Your task to perform on an android device: change text size in settings app Image 0: 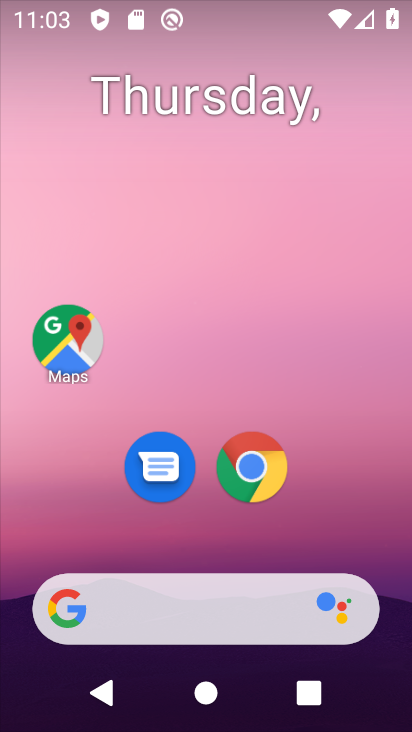
Step 0: drag from (205, 552) to (208, 113)
Your task to perform on an android device: change text size in settings app Image 1: 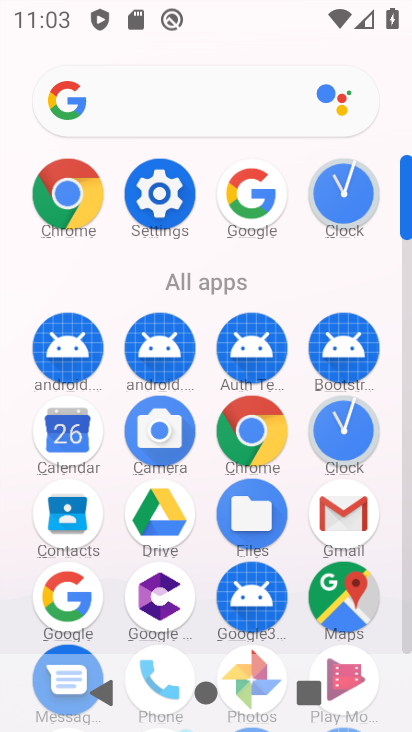
Step 1: drag from (206, 280) to (195, 20)
Your task to perform on an android device: change text size in settings app Image 2: 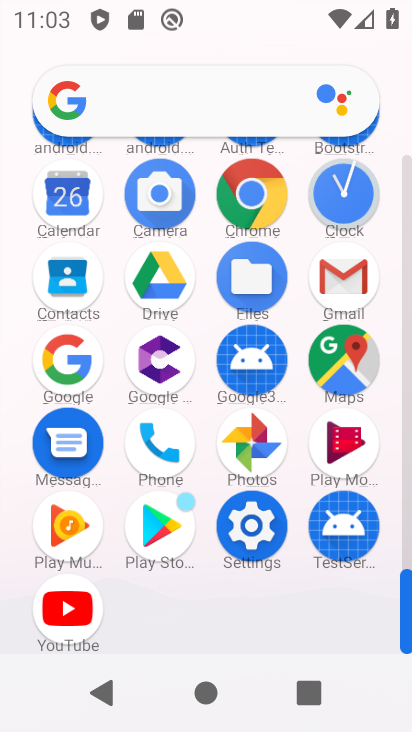
Step 2: click (236, 539)
Your task to perform on an android device: change text size in settings app Image 3: 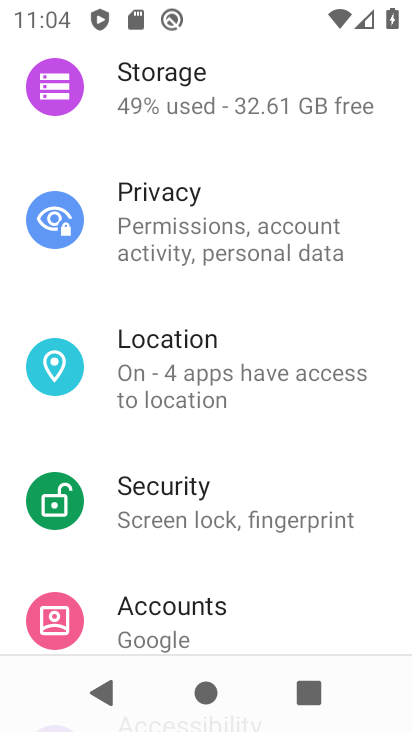
Step 3: drag from (225, 269) to (202, 636)
Your task to perform on an android device: change text size in settings app Image 4: 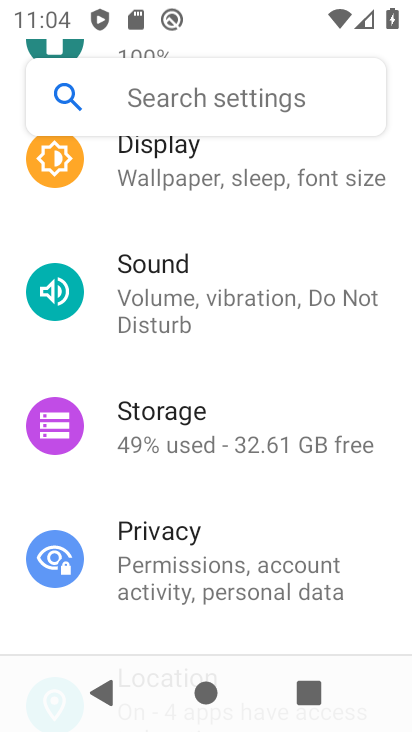
Step 4: drag from (180, 217) to (199, 559)
Your task to perform on an android device: change text size in settings app Image 5: 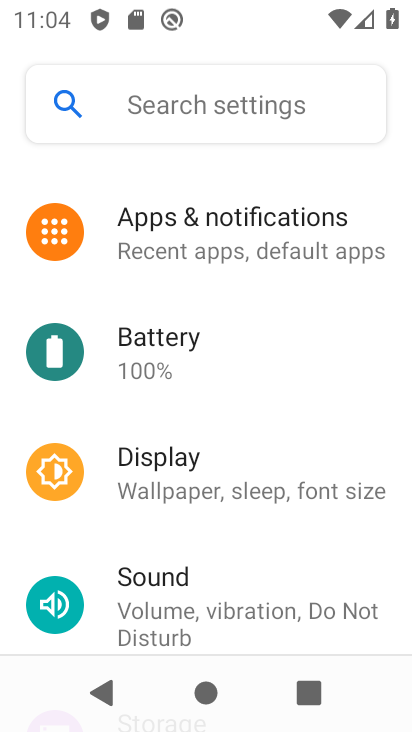
Step 5: drag from (182, 456) to (218, 131)
Your task to perform on an android device: change text size in settings app Image 6: 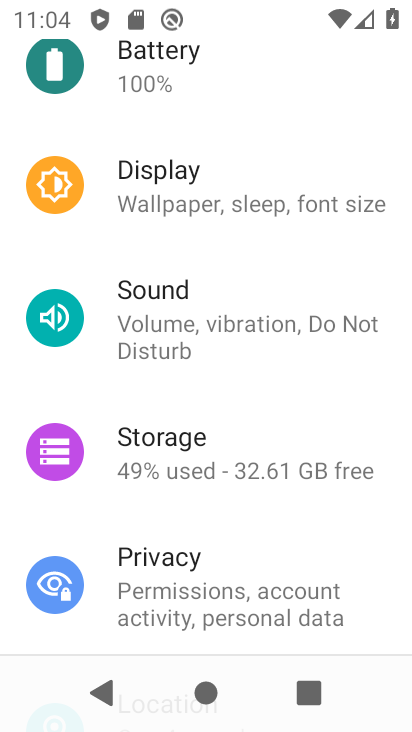
Step 6: drag from (171, 531) to (157, 176)
Your task to perform on an android device: change text size in settings app Image 7: 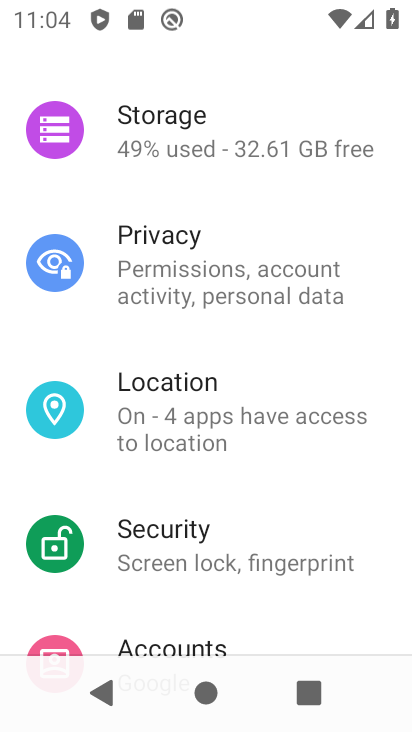
Step 7: drag from (209, 497) to (175, 150)
Your task to perform on an android device: change text size in settings app Image 8: 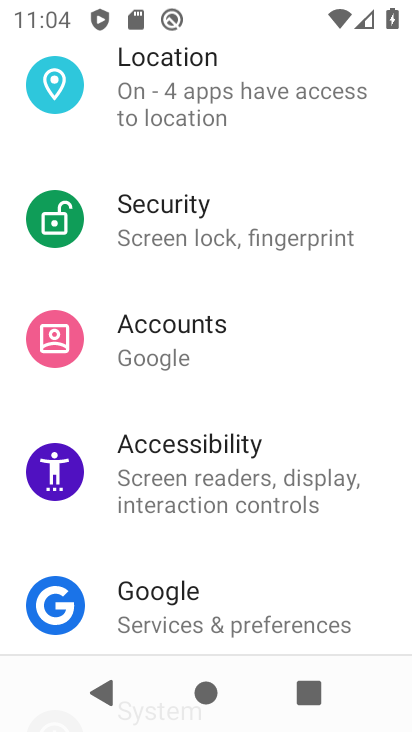
Step 8: drag from (188, 517) to (195, 130)
Your task to perform on an android device: change text size in settings app Image 9: 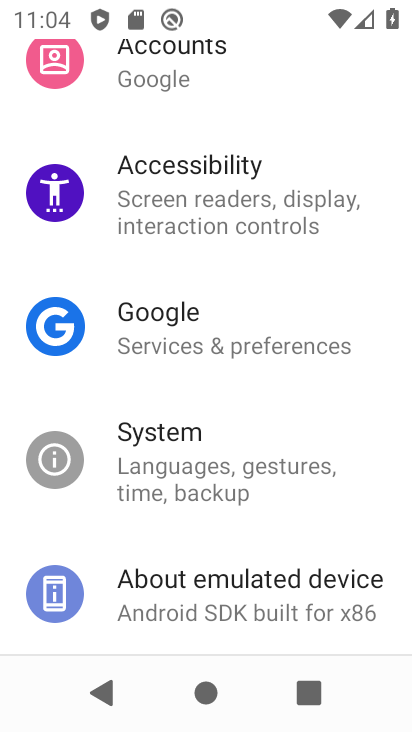
Step 9: drag from (210, 102) to (197, 563)
Your task to perform on an android device: change text size in settings app Image 10: 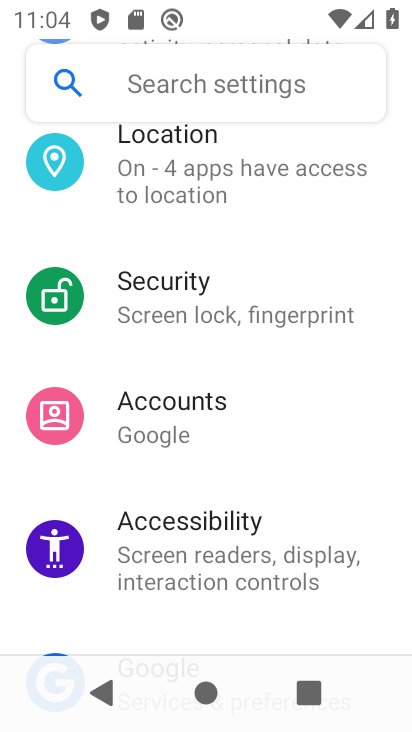
Step 10: drag from (207, 222) to (215, 612)
Your task to perform on an android device: change text size in settings app Image 11: 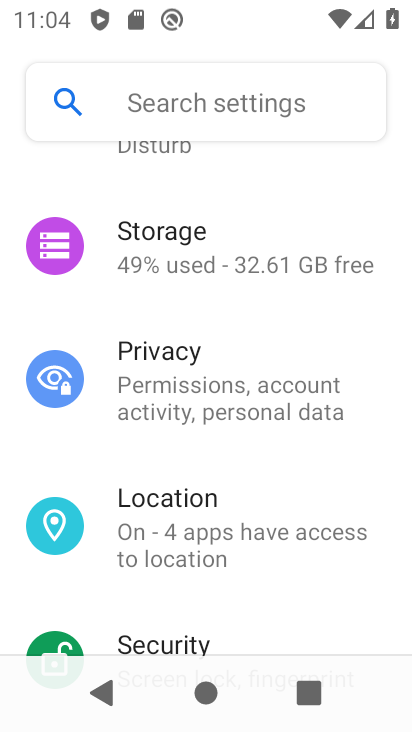
Step 11: drag from (193, 306) to (218, 575)
Your task to perform on an android device: change text size in settings app Image 12: 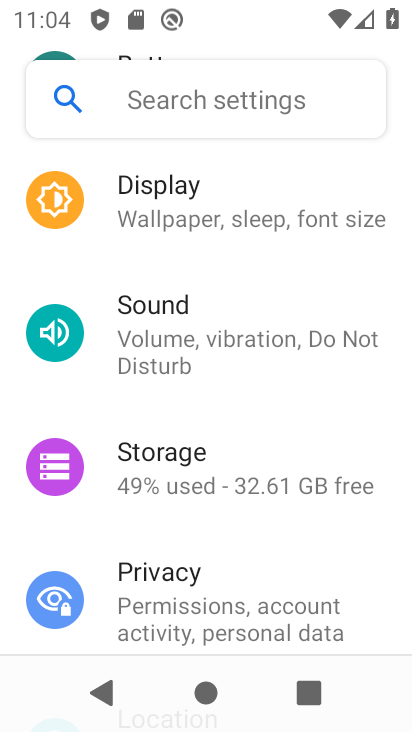
Step 12: click (186, 231)
Your task to perform on an android device: change text size in settings app Image 13: 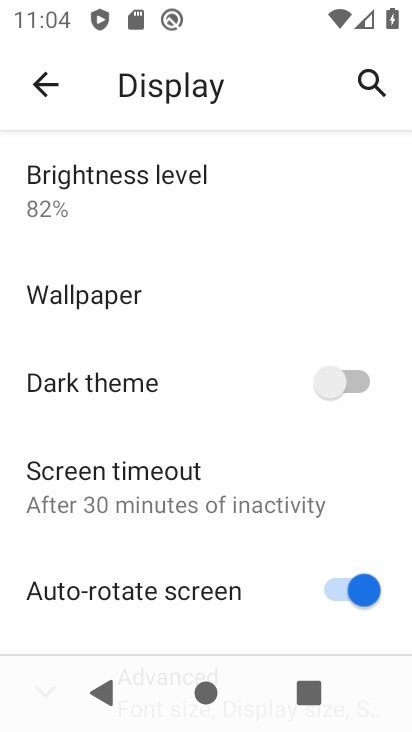
Step 13: drag from (199, 471) to (193, 58)
Your task to perform on an android device: change text size in settings app Image 14: 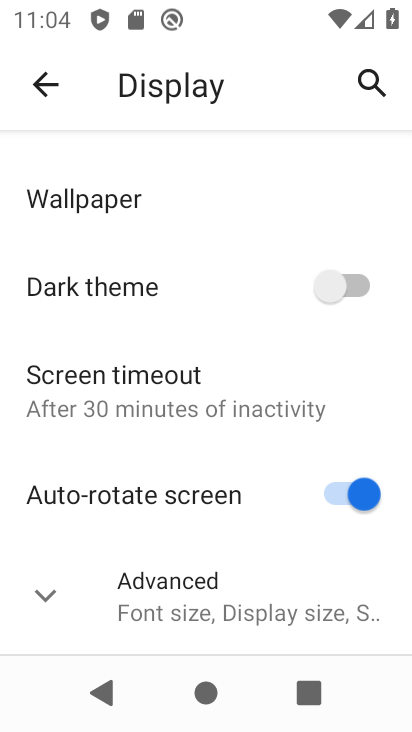
Step 14: click (154, 607)
Your task to perform on an android device: change text size in settings app Image 15: 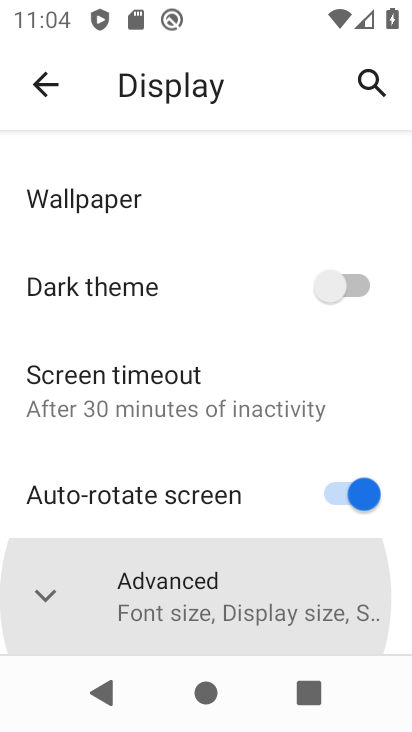
Step 15: drag from (135, 526) to (135, 166)
Your task to perform on an android device: change text size in settings app Image 16: 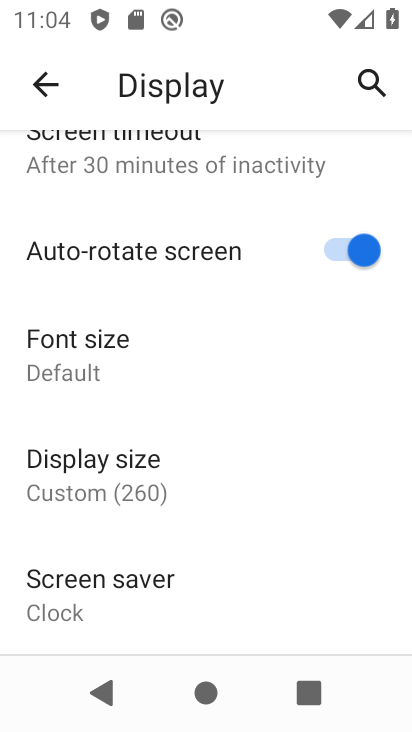
Step 16: drag from (150, 477) to (141, 241)
Your task to perform on an android device: change text size in settings app Image 17: 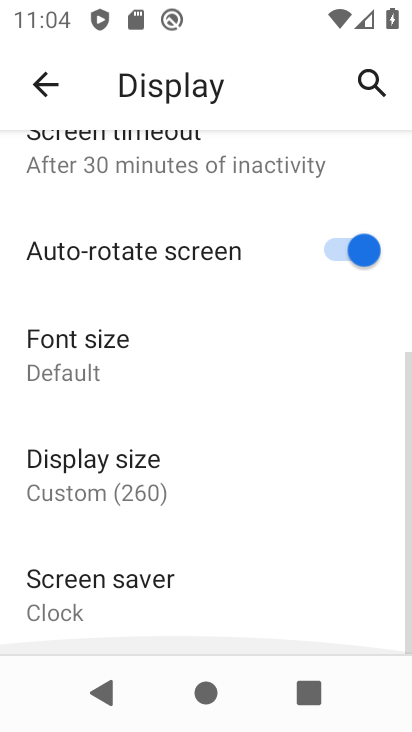
Step 17: click (140, 374)
Your task to perform on an android device: change text size in settings app Image 18: 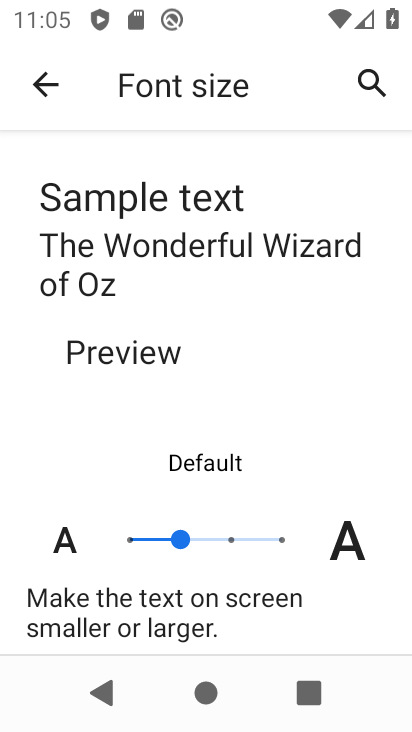
Step 18: click (133, 543)
Your task to perform on an android device: change text size in settings app Image 19: 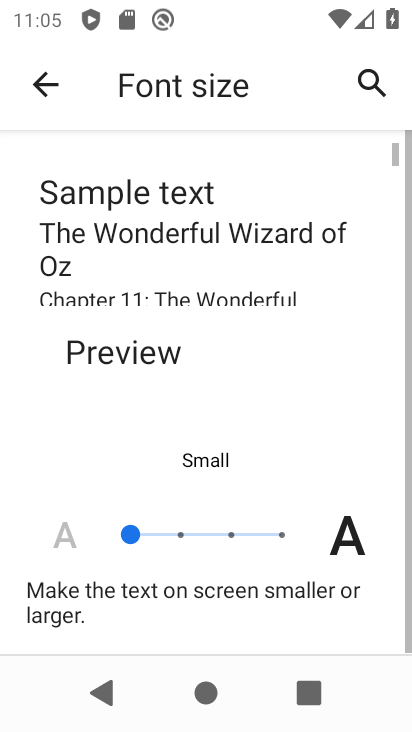
Step 19: task complete